Your task to perform on an android device: open app "Microsoft Authenticator" Image 0: 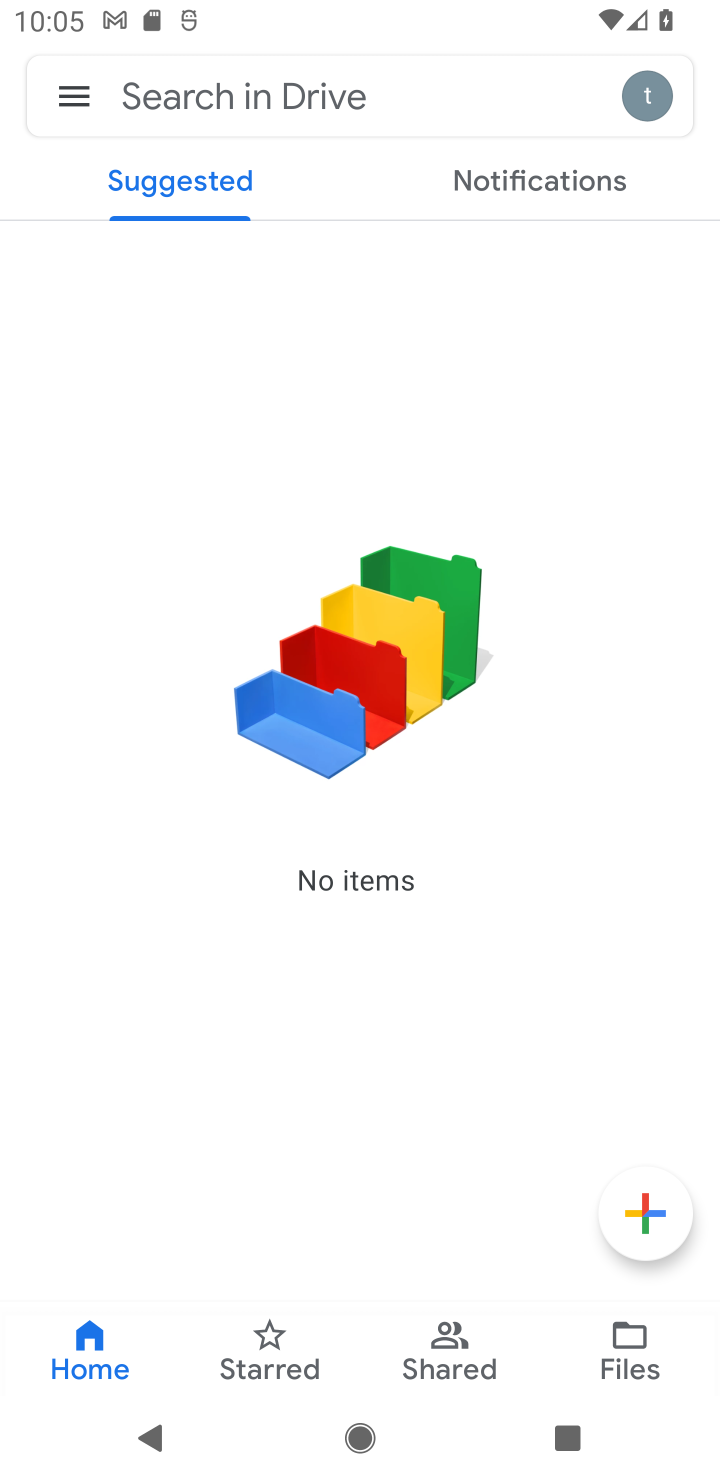
Step 0: press home button
Your task to perform on an android device: open app "Microsoft Authenticator" Image 1: 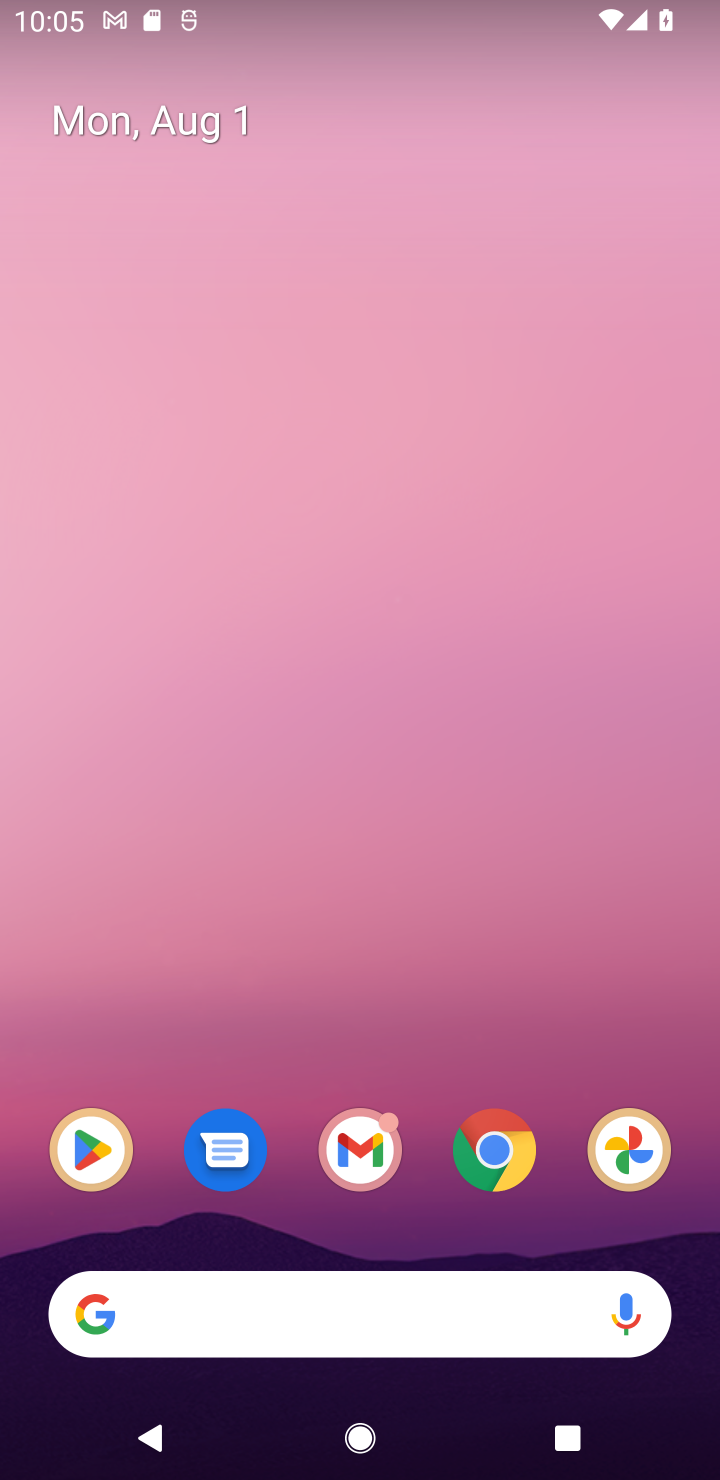
Step 1: click (113, 1137)
Your task to perform on an android device: open app "Microsoft Authenticator" Image 2: 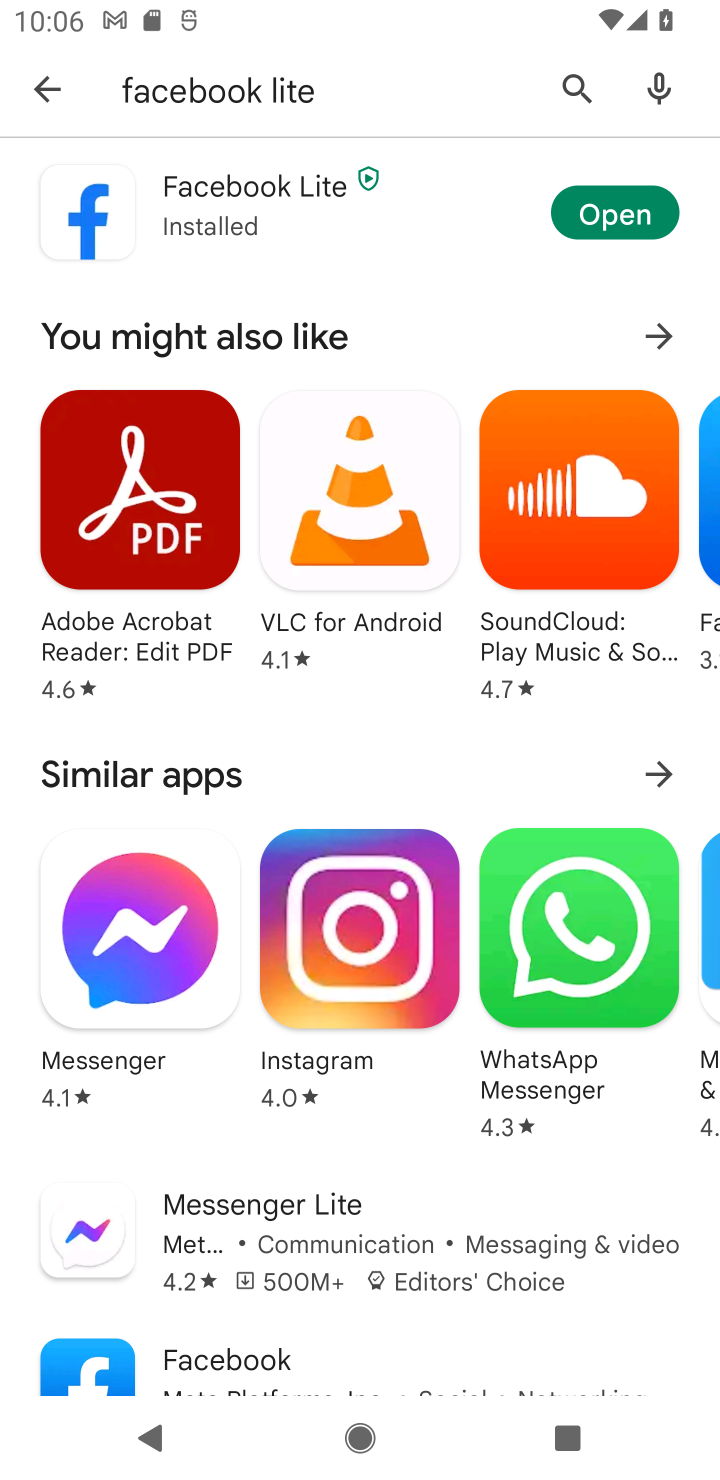
Step 2: click (558, 76)
Your task to perform on an android device: open app "Microsoft Authenticator" Image 3: 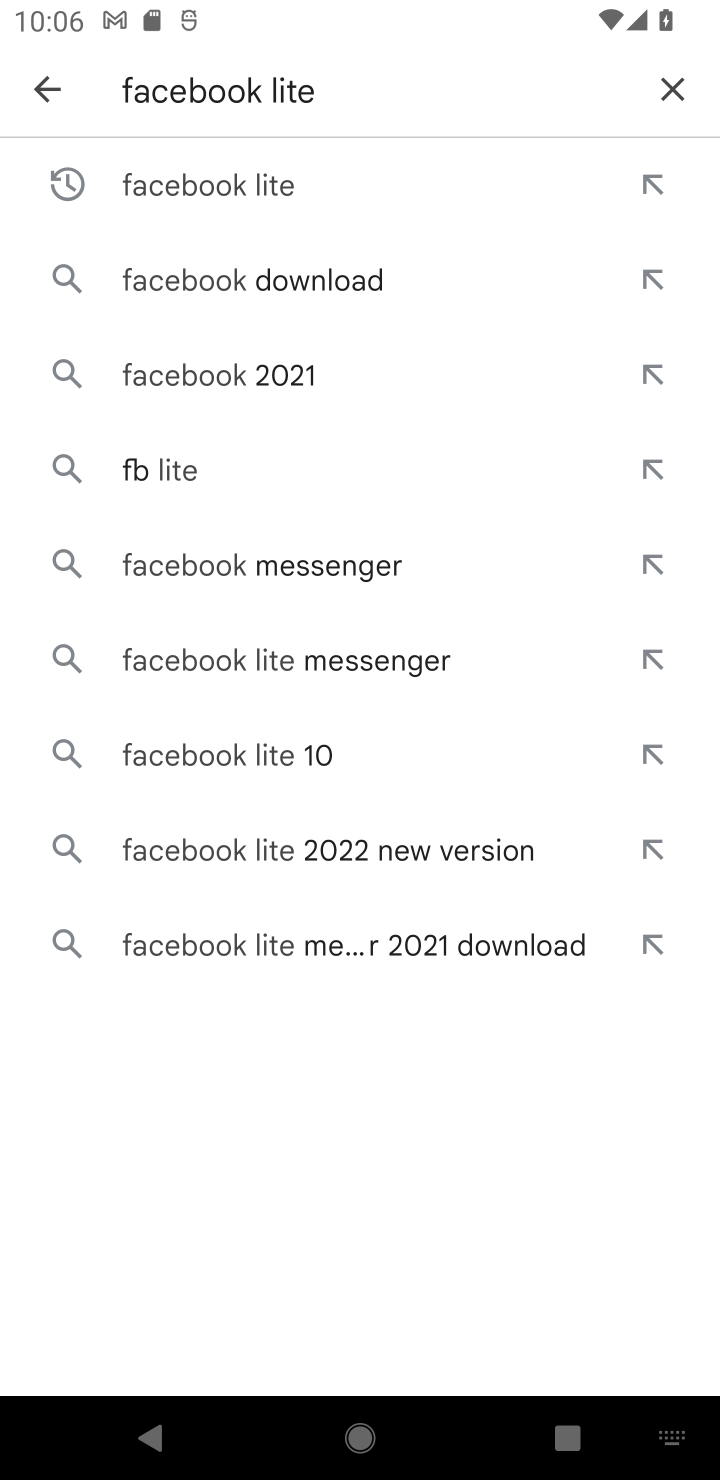
Step 3: click (676, 85)
Your task to perform on an android device: open app "Microsoft Authenticator" Image 4: 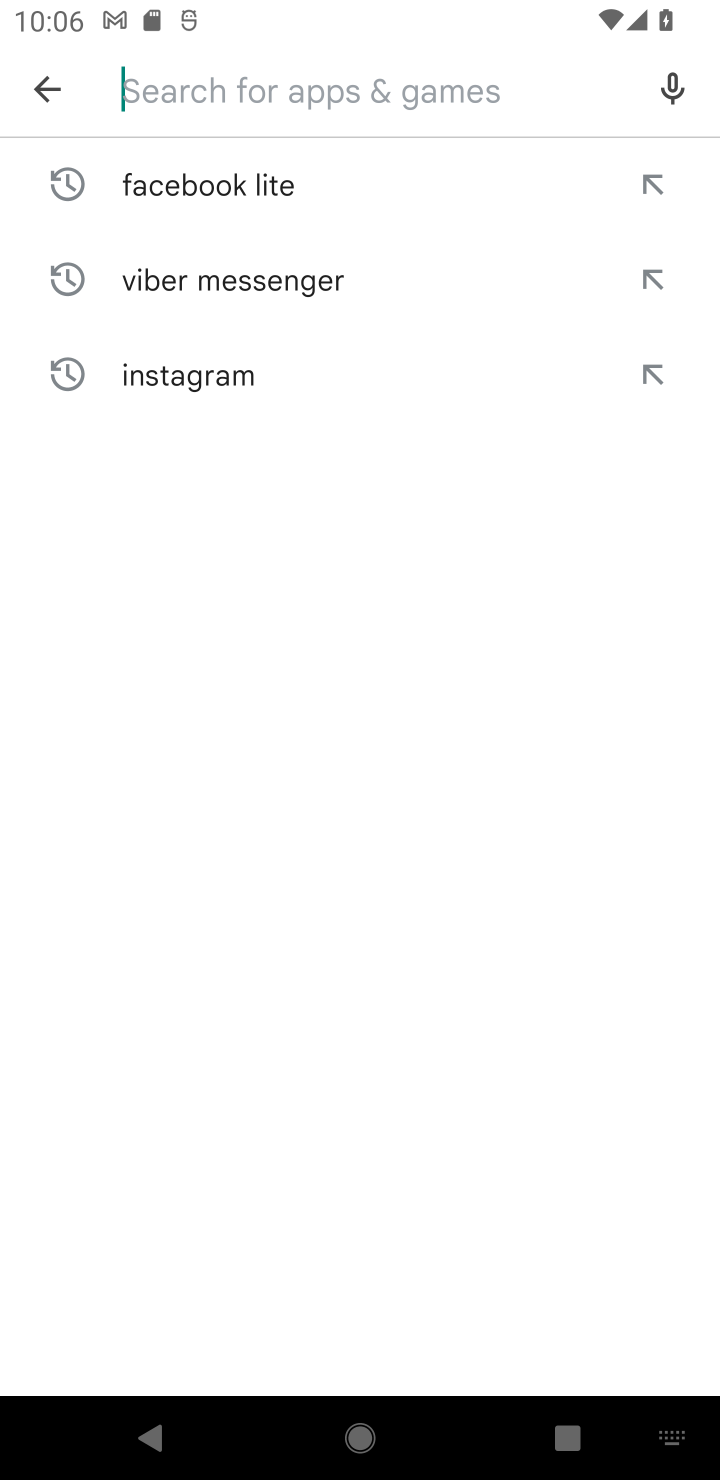
Step 4: type "Microsoft Authenticator"
Your task to perform on an android device: open app "Microsoft Authenticator" Image 5: 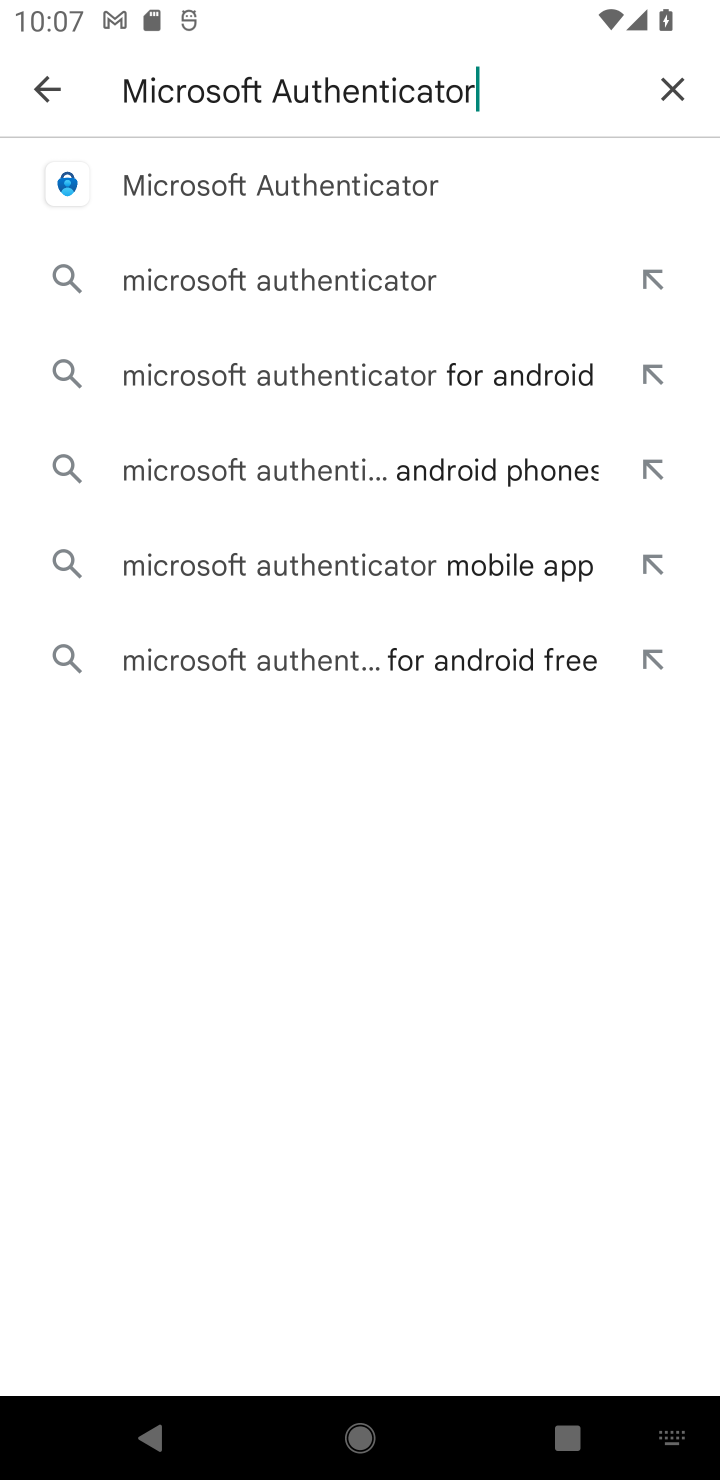
Step 5: click (381, 176)
Your task to perform on an android device: open app "Microsoft Authenticator" Image 6: 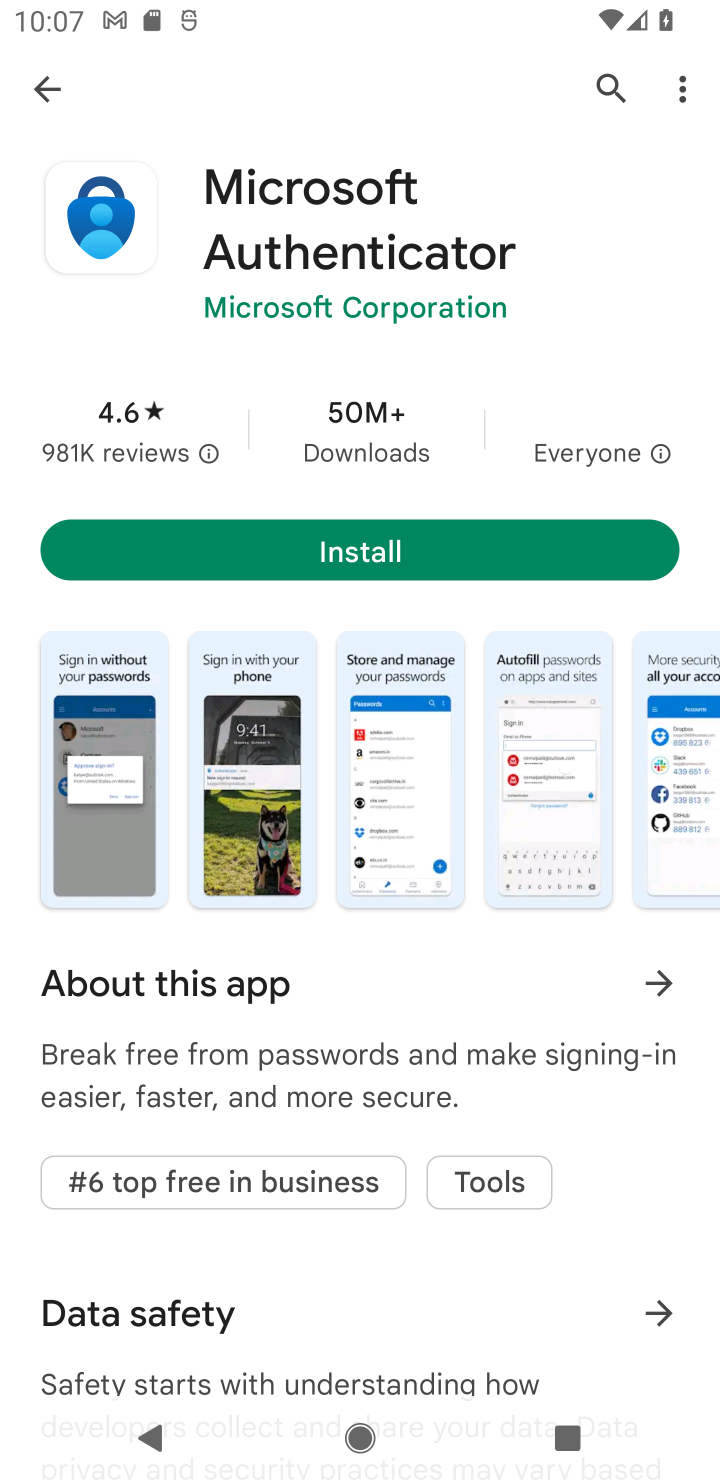
Step 6: task complete